Your task to perform on an android device: visit the assistant section in the google photos Image 0: 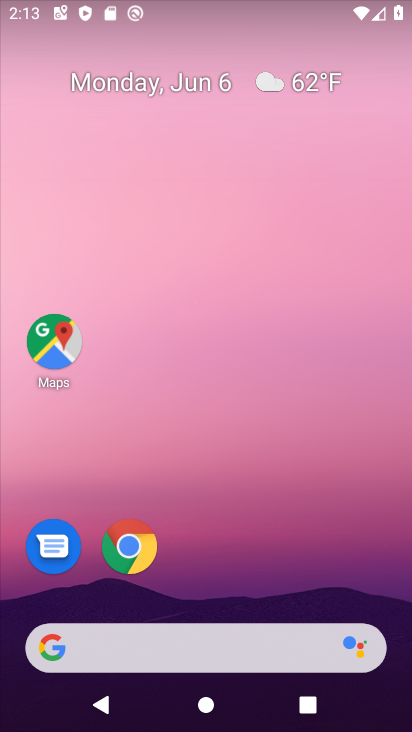
Step 0: drag from (275, 559) to (281, 171)
Your task to perform on an android device: visit the assistant section in the google photos Image 1: 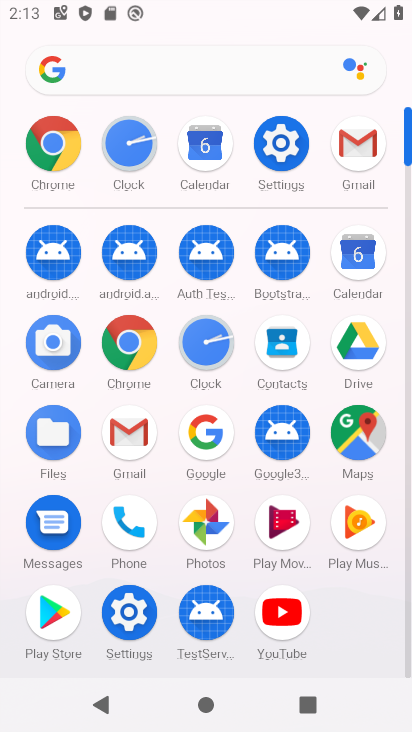
Step 1: click (204, 534)
Your task to perform on an android device: visit the assistant section in the google photos Image 2: 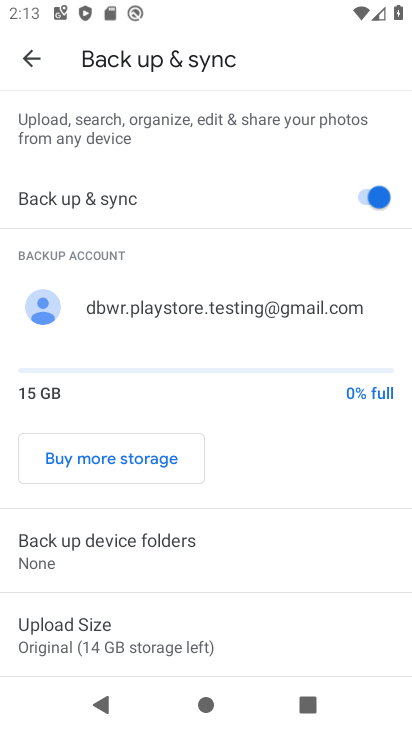
Step 2: click (43, 58)
Your task to perform on an android device: visit the assistant section in the google photos Image 3: 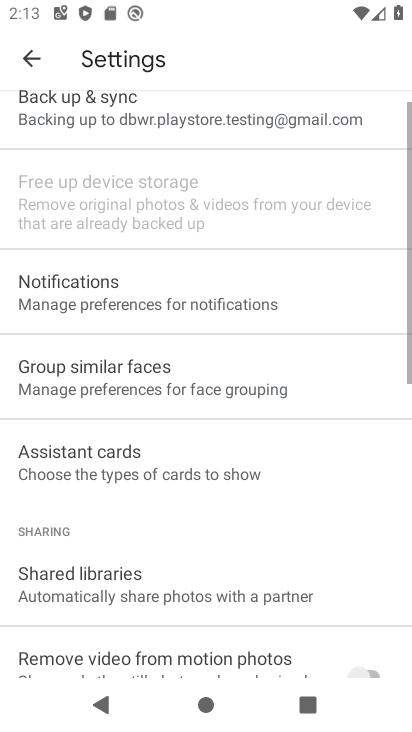
Step 3: click (43, 58)
Your task to perform on an android device: visit the assistant section in the google photos Image 4: 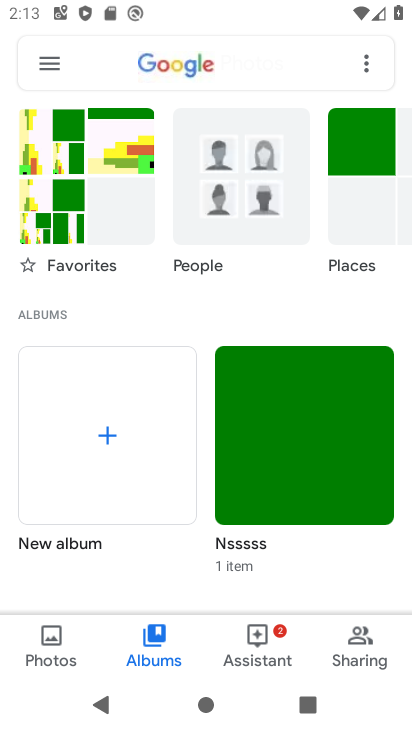
Step 4: click (260, 632)
Your task to perform on an android device: visit the assistant section in the google photos Image 5: 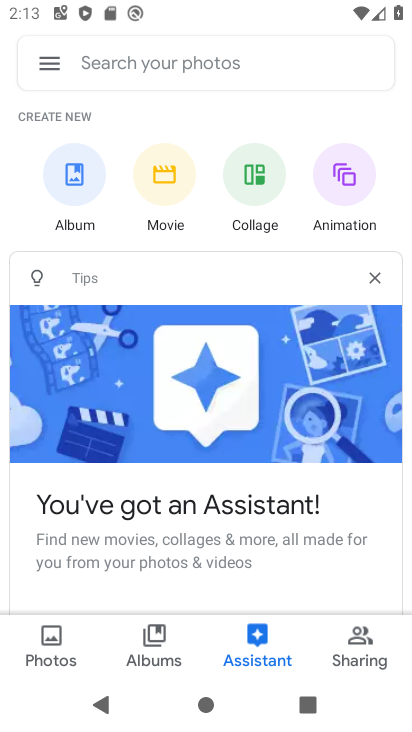
Step 5: task complete